Your task to perform on an android device: When is my next appointment? Image 0: 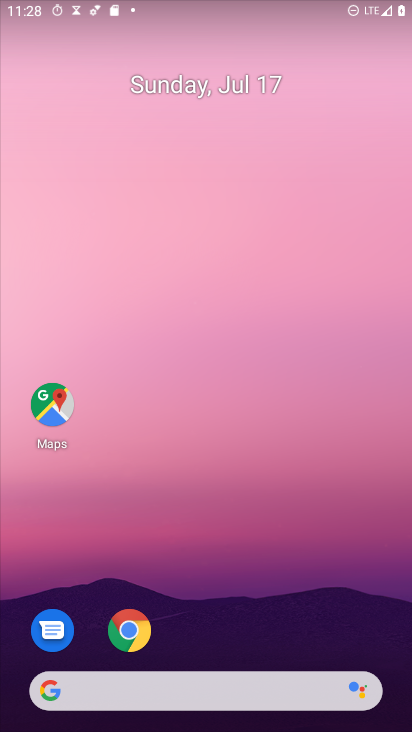
Step 0: drag from (295, 685) to (192, 6)
Your task to perform on an android device: When is my next appointment? Image 1: 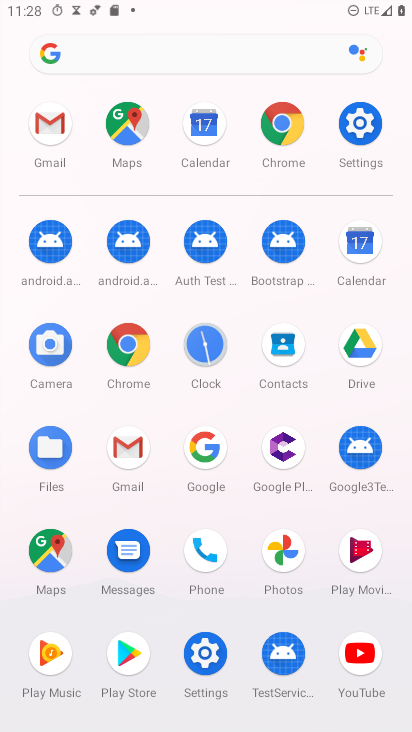
Step 1: click (359, 241)
Your task to perform on an android device: When is my next appointment? Image 2: 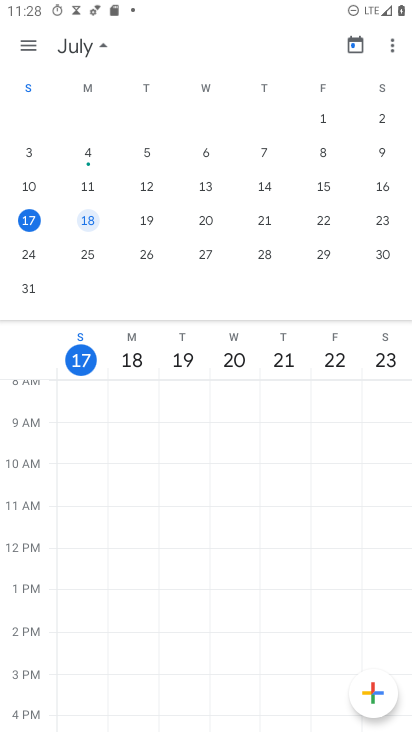
Step 2: click (94, 215)
Your task to perform on an android device: When is my next appointment? Image 3: 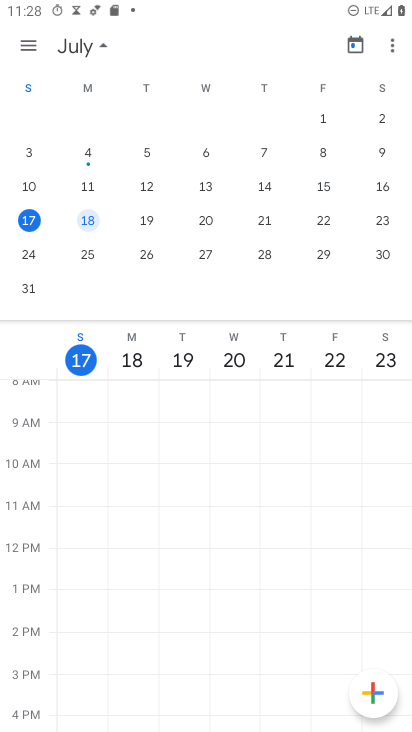
Step 3: task complete